Your task to perform on an android device: move a message to another label in the gmail app Image 0: 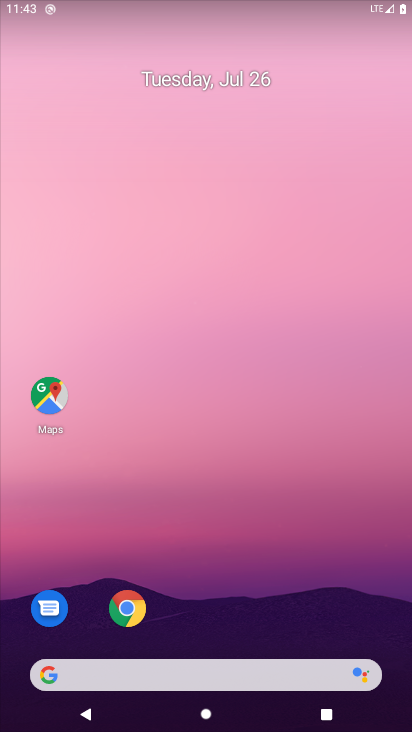
Step 0: press home button
Your task to perform on an android device: move a message to another label in the gmail app Image 1: 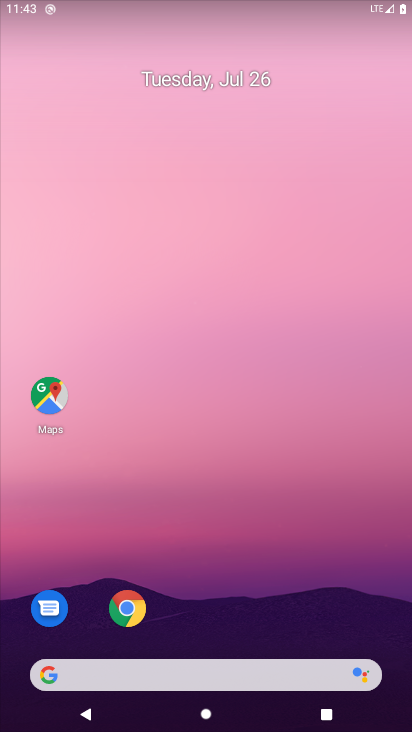
Step 1: drag from (262, 628) to (313, 128)
Your task to perform on an android device: move a message to another label in the gmail app Image 2: 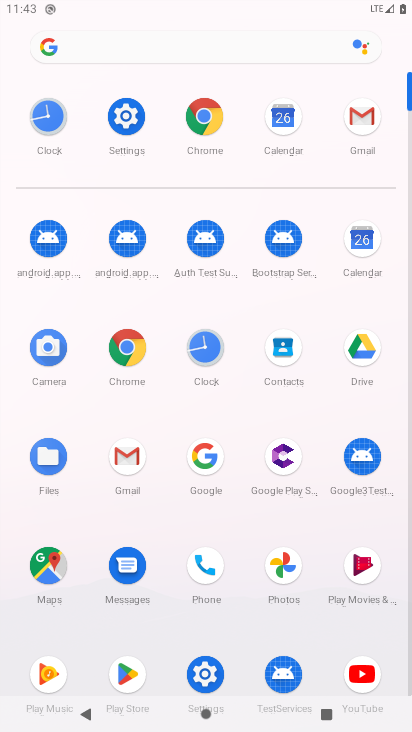
Step 2: click (369, 117)
Your task to perform on an android device: move a message to another label in the gmail app Image 3: 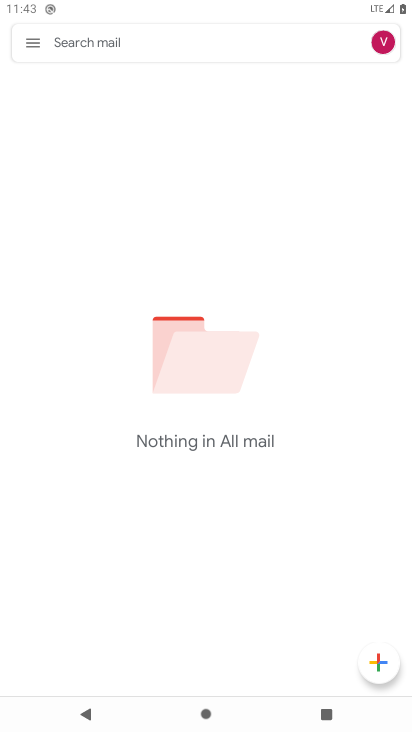
Step 3: task complete